Your task to perform on an android device: Do I have any events this weekend? Image 0: 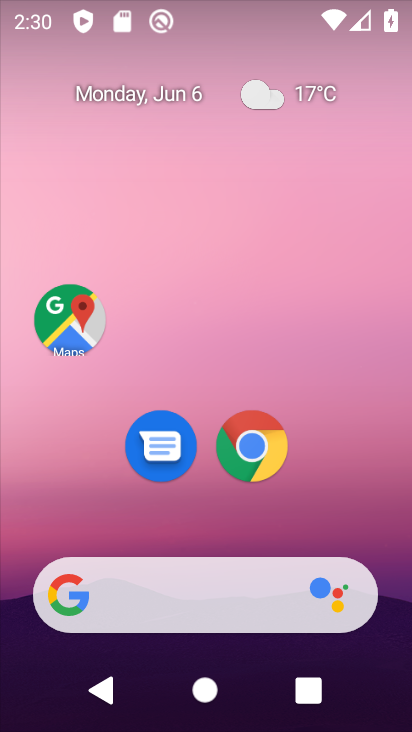
Step 0: drag from (182, 542) to (254, 43)
Your task to perform on an android device: Do I have any events this weekend? Image 1: 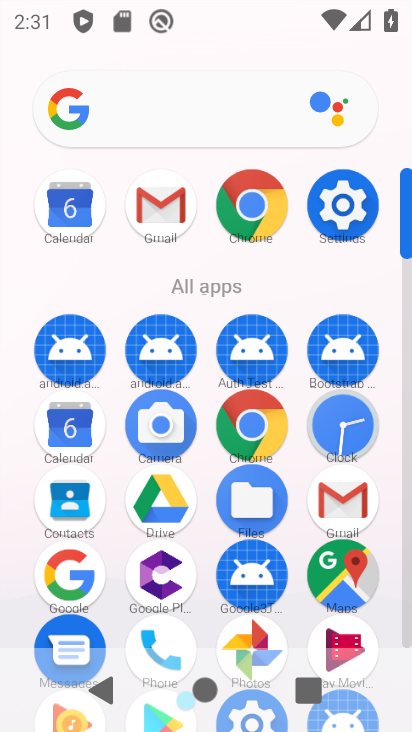
Step 1: click (72, 197)
Your task to perform on an android device: Do I have any events this weekend? Image 2: 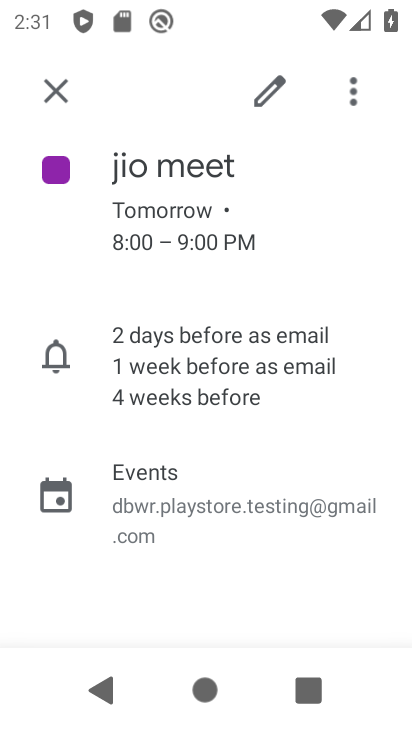
Step 2: click (74, 113)
Your task to perform on an android device: Do I have any events this weekend? Image 3: 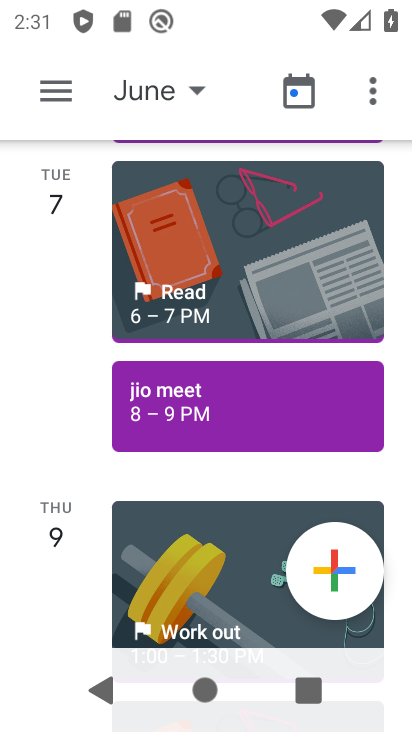
Step 3: drag from (171, 523) to (234, 58)
Your task to perform on an android device: Do I have any events this weekend? Image 4: 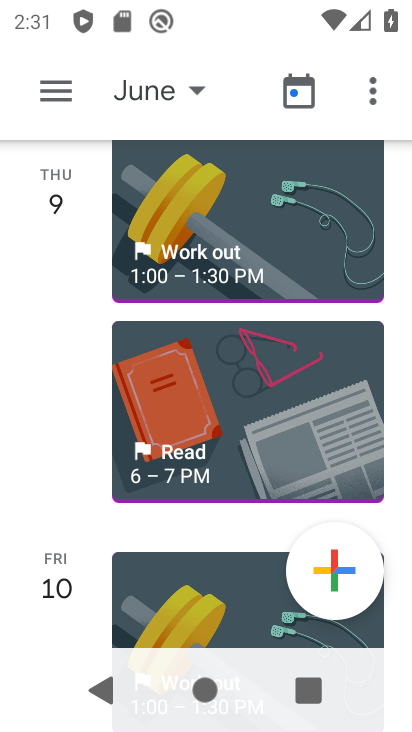
Step 4: drag from (235, 551) to (265, 166)
Your task to perform on an android device: Do I have any events this weekend? Image 5: 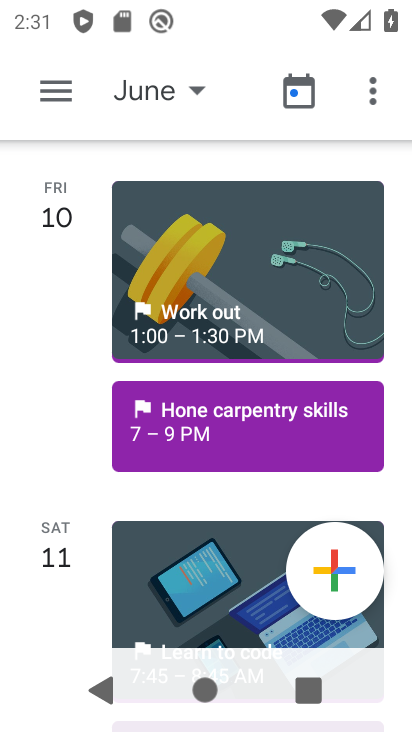
Step 5: drag from (238, 566) to (290, 217)
Your task to perform on an android device: Do I have any events this weekend? Image 6: 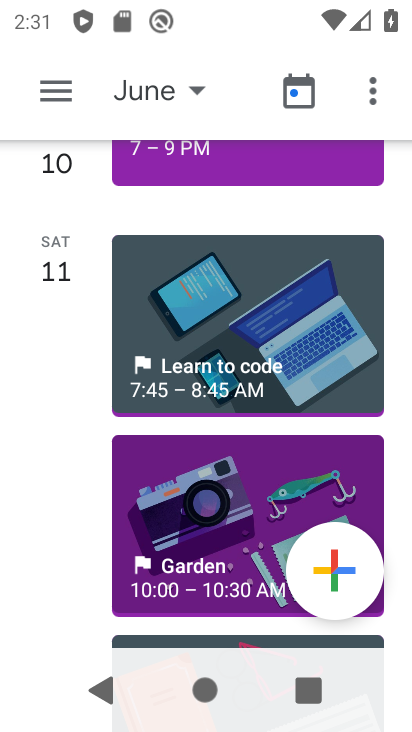
Step 6: drag from (238, 517) to (294, 174)
Your task to perform on an android device: Do I have any events this weekend? Image 7: 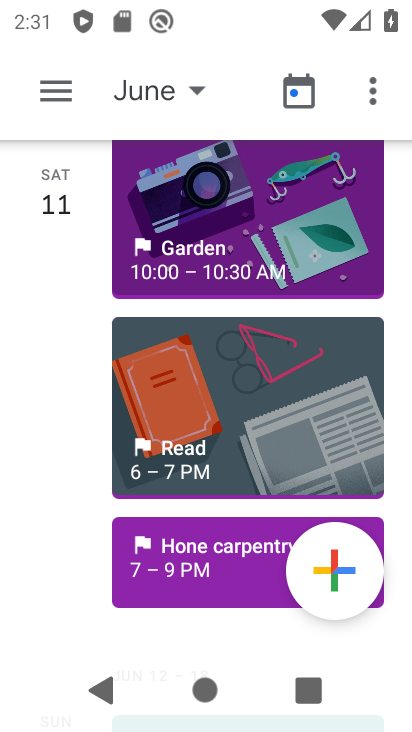
Step 7: click (245, 567)
Your task to perform on an android device: Do I have any events this weekend? Image 8: 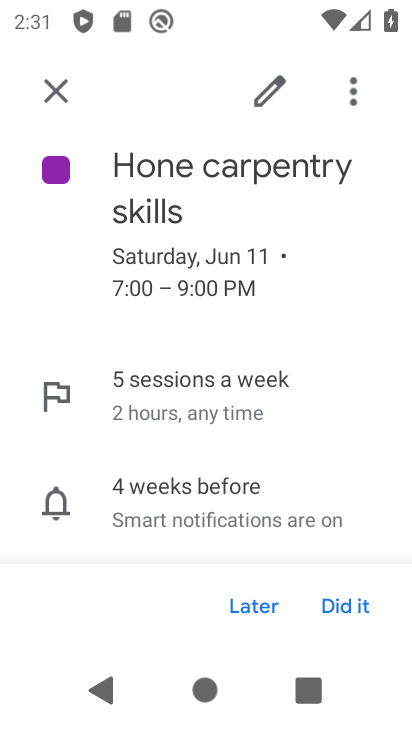
Step 8: task complete